Your task to perform on an android device: turn smart compose on in the gmail app Image 0: 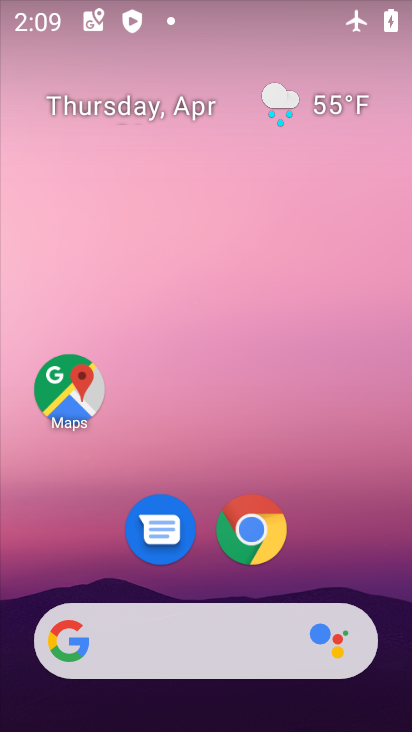
Step 0: drag from (259, 601) to (219, 252)
Your task to perform on an android device: turn smart compose on in the gmail app Image 1: 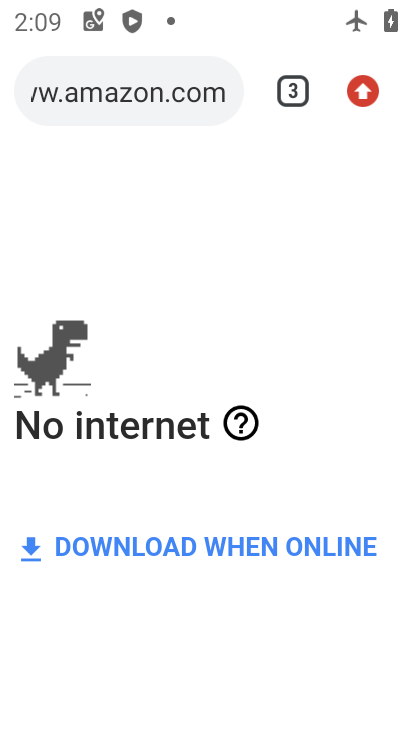
Step 1: press home button
Your task to perform on an android device: turn smart compose on in the gmail app Image 2: 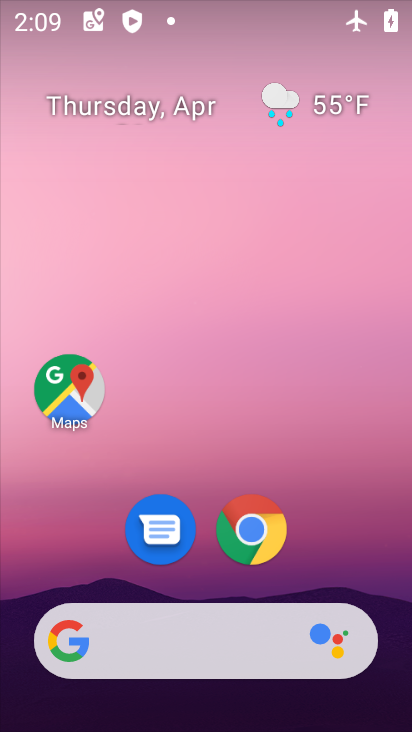
Step 2: drag from (242, 572) to (230, 243)
Your task to perform on an android device: turn smart compose on in the gmail app Image 3: 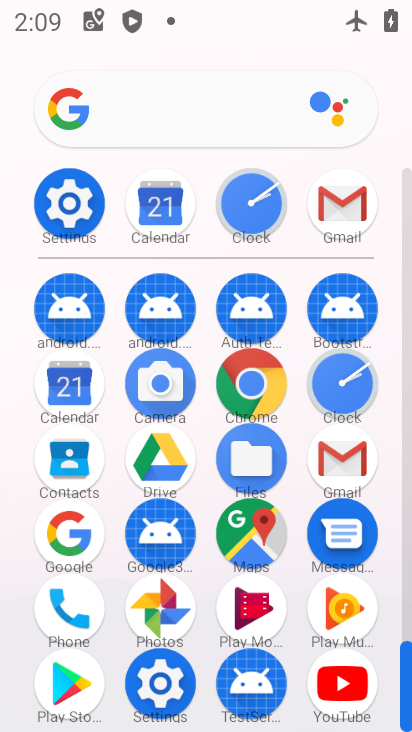
Step 3: click (355, 483)
Your task to perform on an android device: turn smart compose on in the gmail app Image 4: 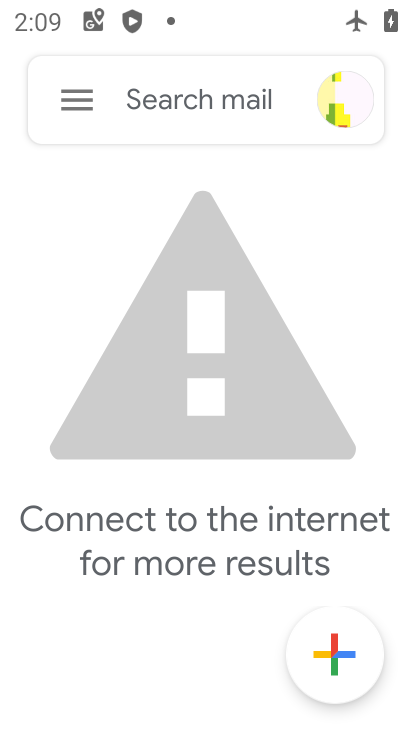
Step 4: click (64, 114)
Your task to perform on an android device: turn smart compose on in the gmail app Image 5: 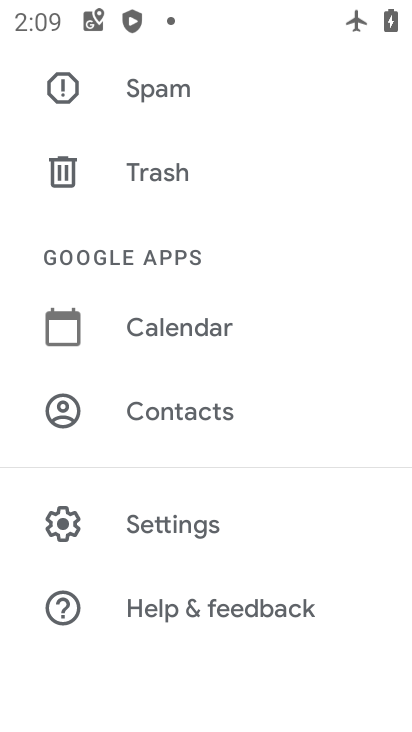
Step 5: click (179, 544)
Your task to perform on an android device: turn smart compose on in the gmail app Image 6: 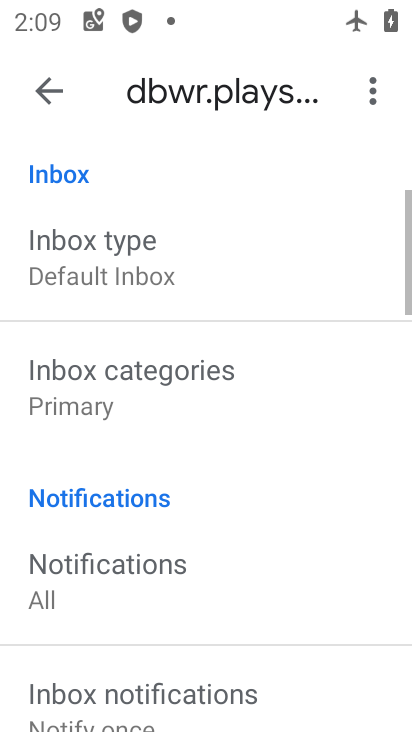
Step 6: drag from (184, 550) to (215, 337)
Your task to perform on an android device: turn smart compose on in the gmail app Image 7: 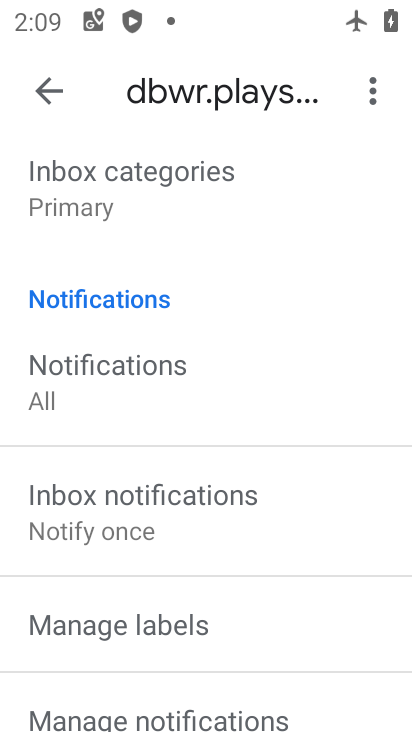
Step 7: drag from (229, 542) to (262, 271)
Your task to perform on an android device: turn smart compose on in the gmail app Image 8: 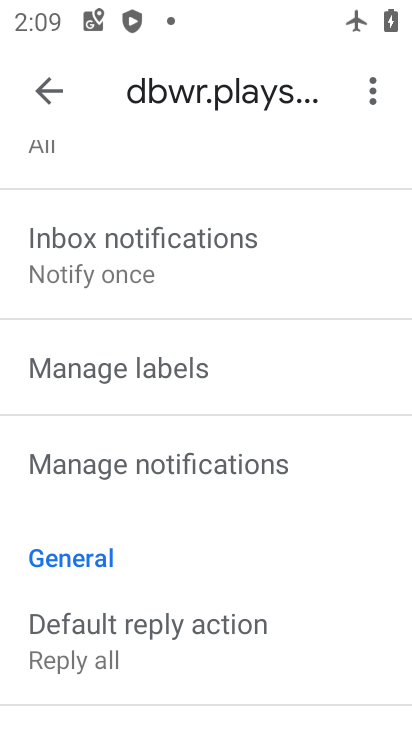
Step 8: drag from (218, 571) to (227, 265)
Your task to perform on an android device: turn smart compose on in the gmail app Image 9: 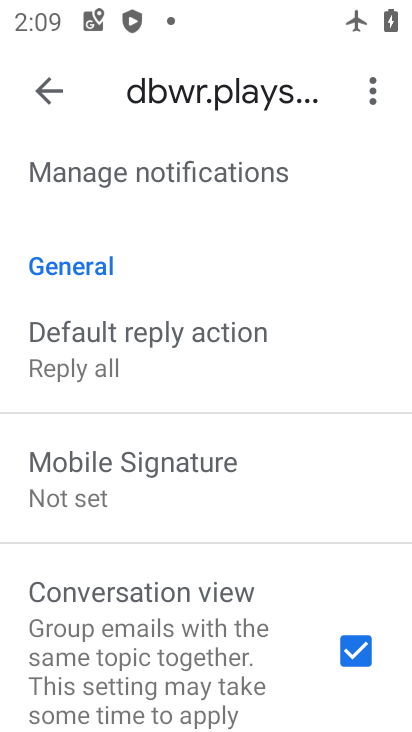
Step 9: drag from (264, 539) to (281, 288)
Your task to perform on an android device: turn smart compose on in the gmail app Image 10: 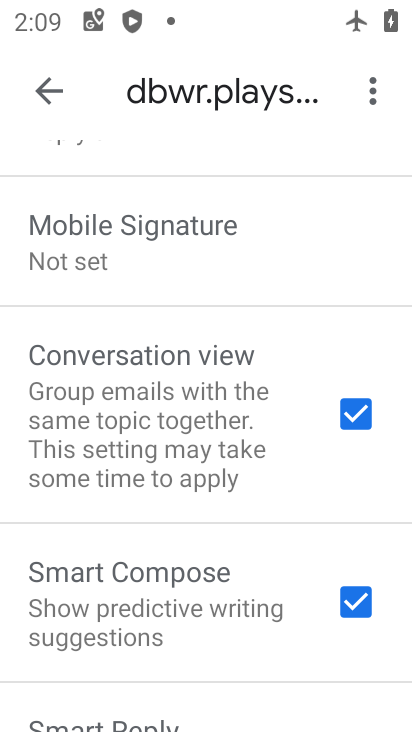
Step 10: click (363, 609)
Your task to perform on an android device: turn smart compose on in the gmail app Image 11: 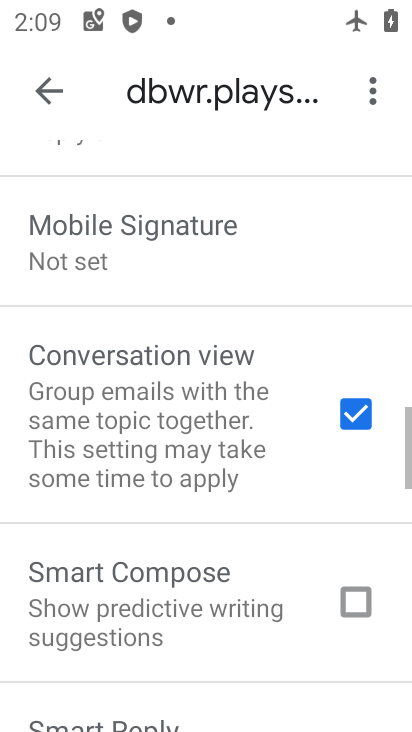
Step 11: click (363, 609)
Your task to perform on an android device: turn smart compose on in the gmail app Image 12: 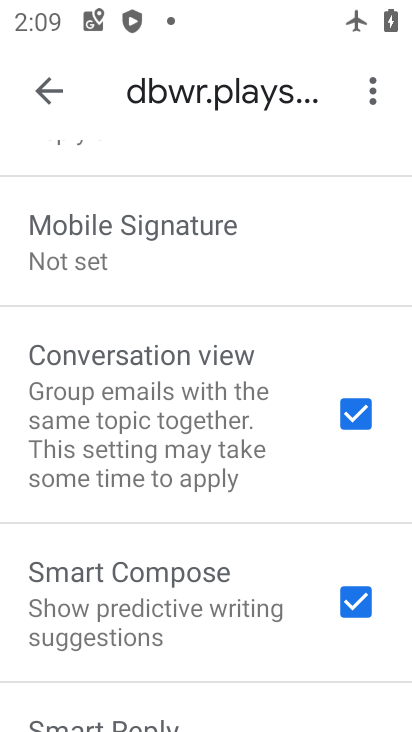
Step 12: task complete